Your task to perform on an android device: Go to notification settings Image 0: 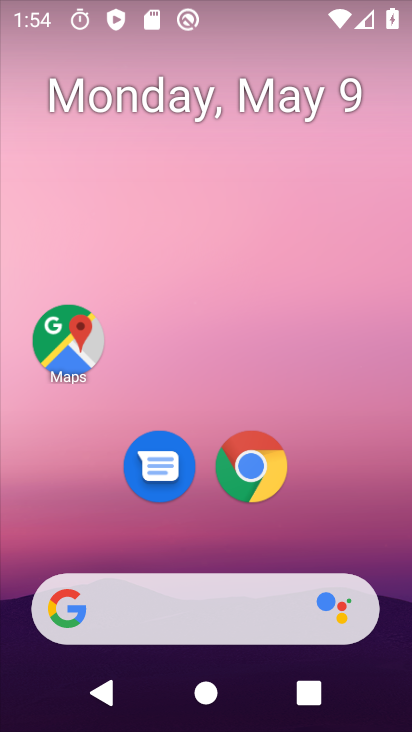
Step 0: drag from (292, 572) to (306, 164)
Your task to perform on an android device: Go to notification settings Image 1: 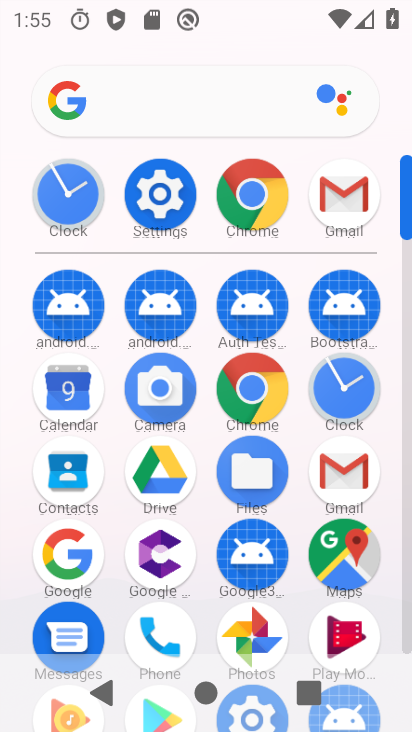
Step 1: click (165, 174)
Your task to perform on an android device: Go to notification settings Image 2: 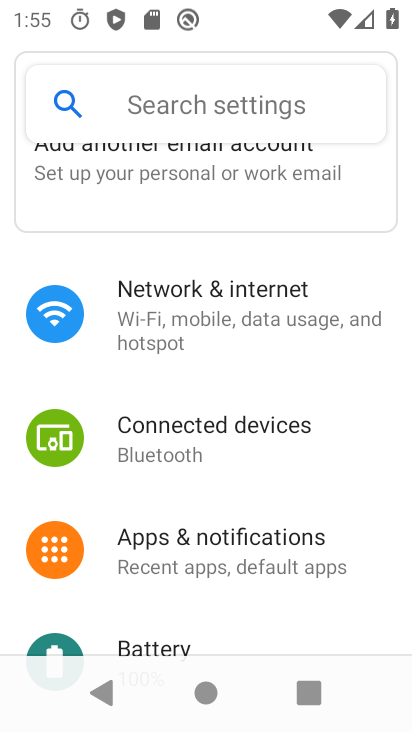
Step 2: click (234, 569)
Your task to perform on an android device: Go to notification settings Image 3: 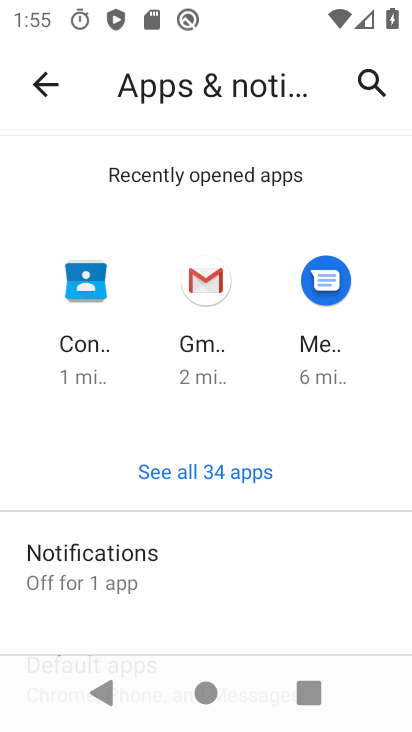
Step 3: click (151, 583)
Your task to perform on an android device: Go to notification settings Image 4: 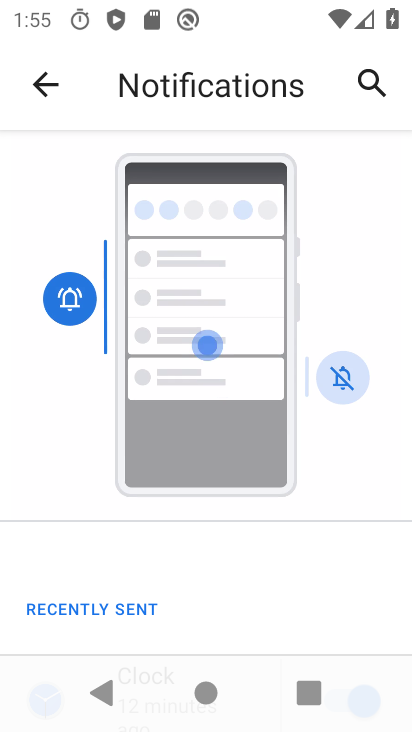
Step 4: task complete